Your task to perform on an android device: visit the assistant section in the google photos Image 0: 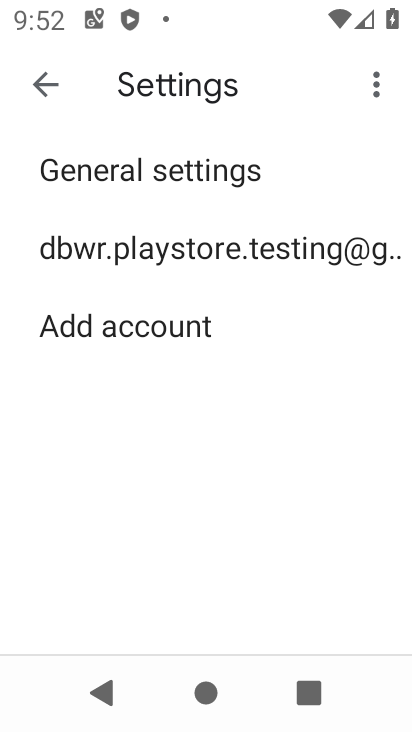
Step 0: press home button
Your task to perform on an android device: visit the assistant section in the google photos Image 1: 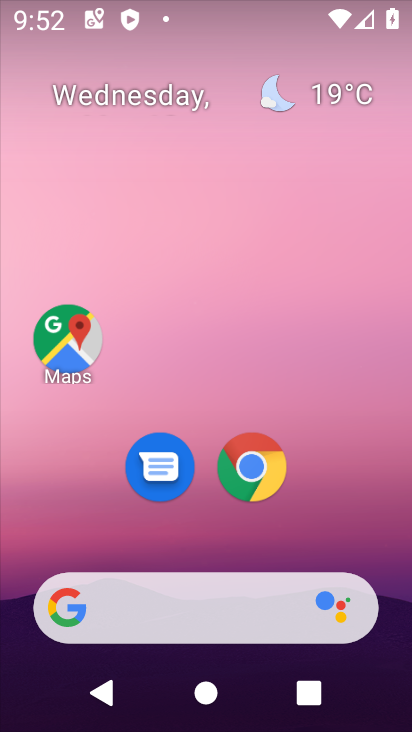
Step 1: drag from (286, 550) to (158, 40)
Your task to perform on an android device: visit the assistant section in the google photos Image 2: 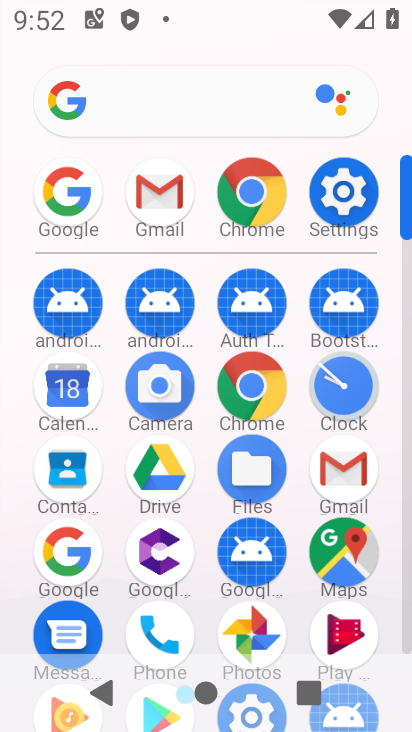
Step 2: click (254, 622)
Your task to perform on an android device: visit the assistant section in the google photos Image 3: 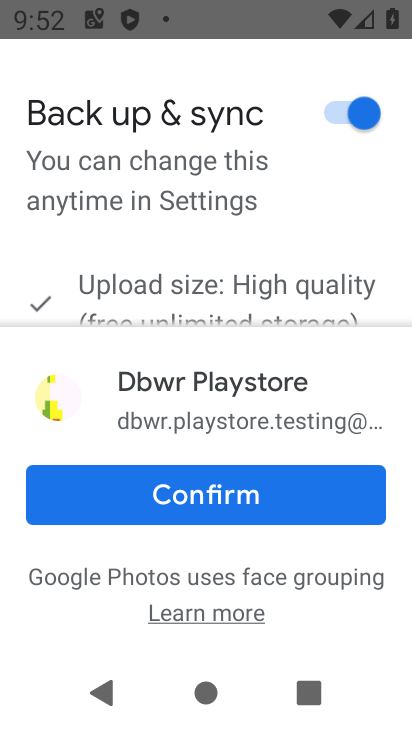
Step 3: press home button
Your task to perform on an android device: visit the assistant section in the google photos Image 4: 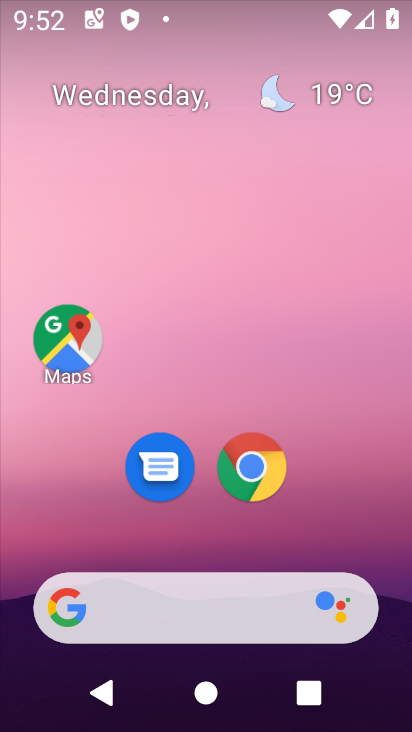
Step 4: drag from (311, 533) to (178, 79)
Your task to perform on an android device: visit the assistant section in the google photos Image 5: 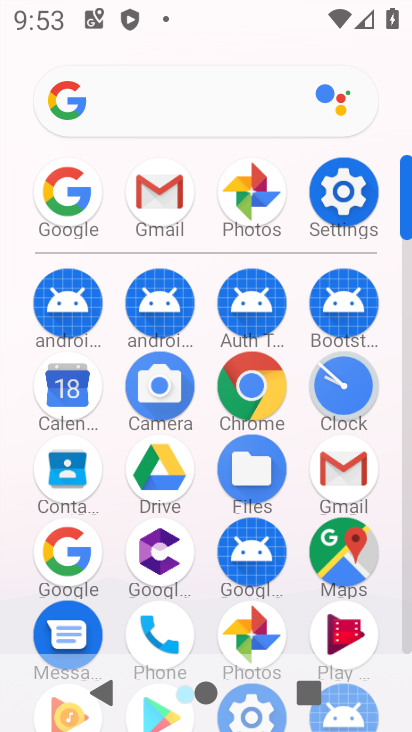
Step 5: click (255, 633)
Your task to perform on an android device: visit the assistant section in the google photos Image 6: 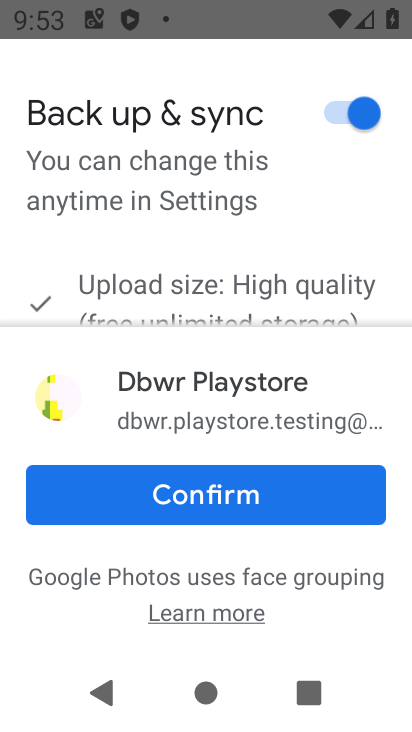
Step 6: click (221, 495)
Your task to perform on an android device: visit the assistant section in the google photos Image 7: 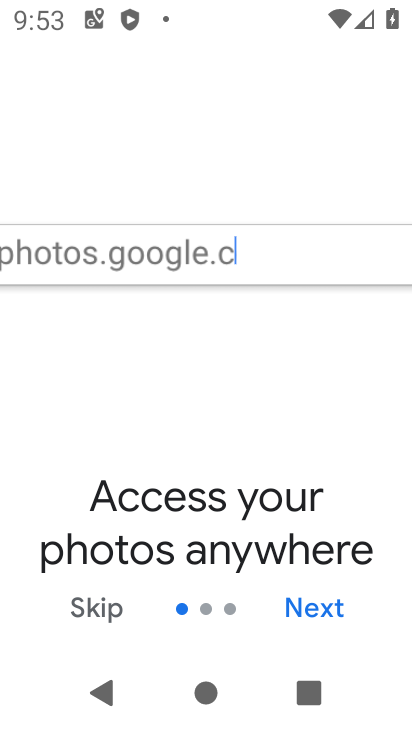
Step 7: click (298, 602)
Your task to perform on an android device: visit the assistant section in the google photos Image 8: 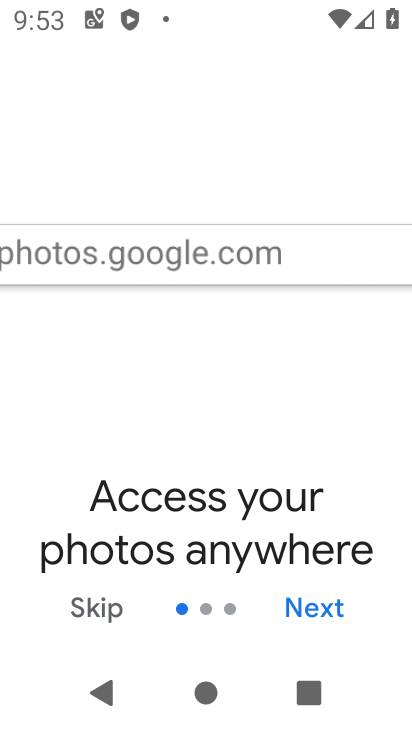
Step 8: click (298, 602)
Your task to perform on an android device: visit the assistant section in the google photos Image 9: 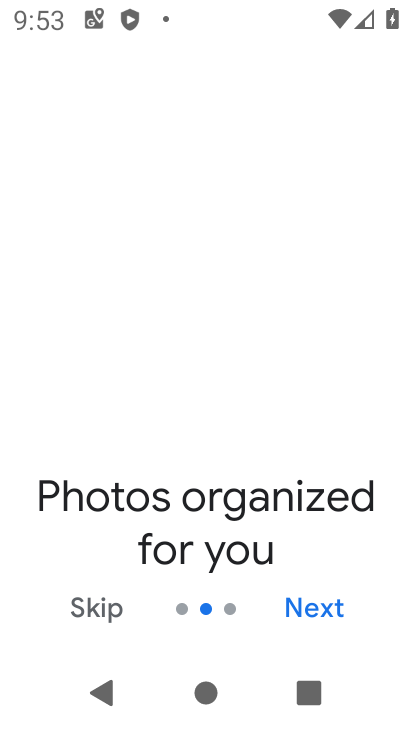
Step 9: click (299, 602)
Your task to perform on an android device: visit the assistant section in the google photos Image 10: 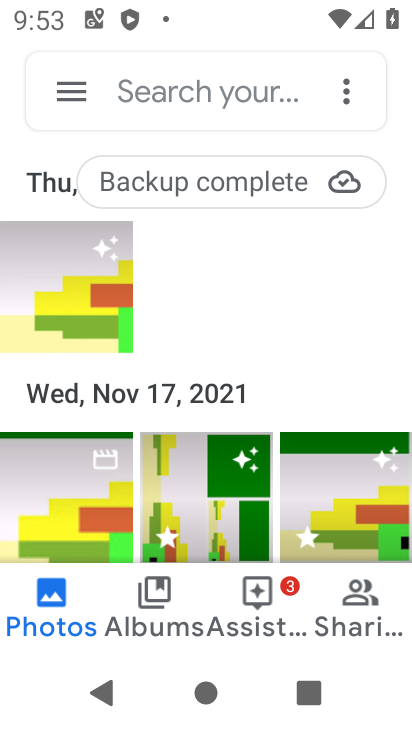
Step 10: click (251, 602)
Your task to perform on an android device: visit the assistant section in the google photos Image 11: 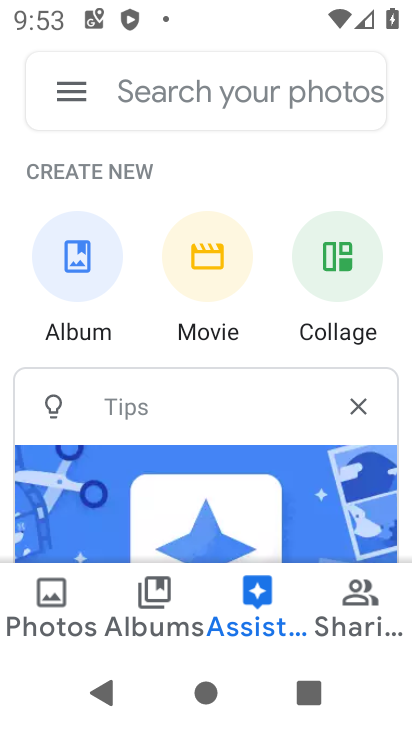
Step 11: task complete